Your task to perform on an android device: Search for sushi restaurants on Maps Image 0: 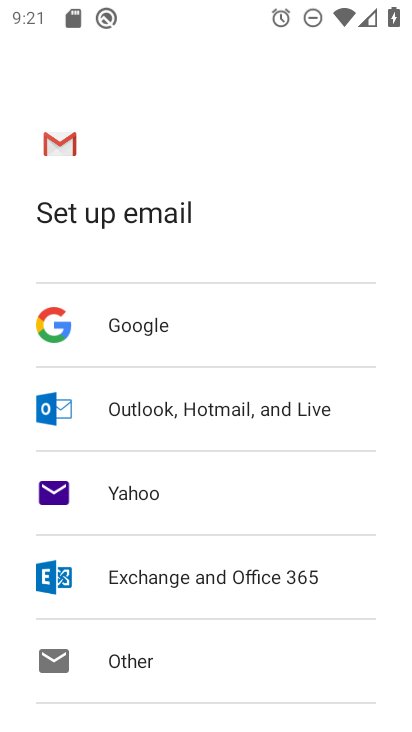
Step 0: press home button
Your task to perform on an android device: Search for sushi restaurants on Maps Image 1: 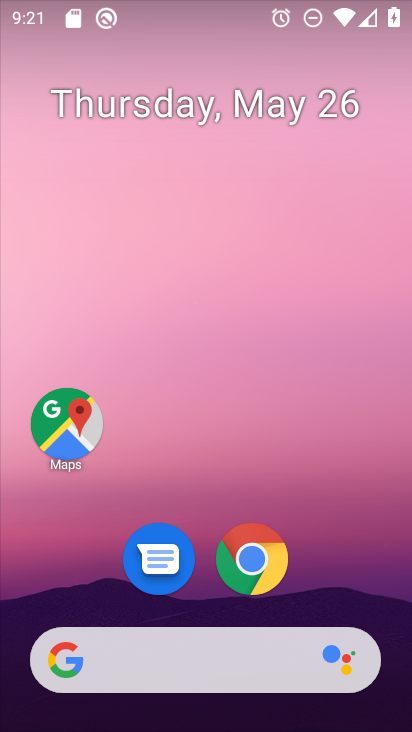
Step 1: click (68, 428)
Your task to perform on an android device: Search for sushi restaurants on Maps Image 2: 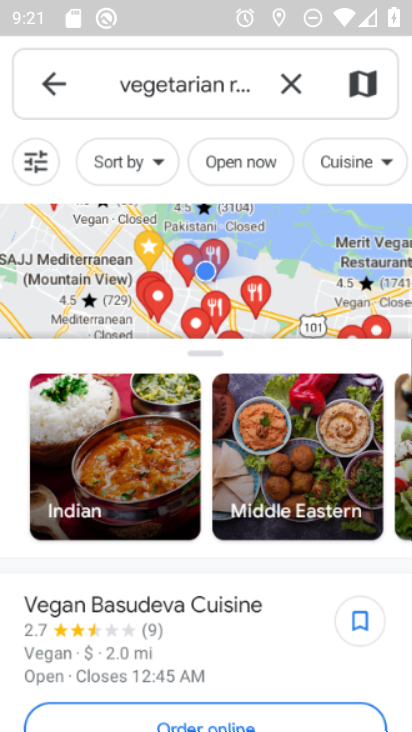
Step 2: click (279, 82)
Your task to perform on an android device: Search for sushi restaurants on Maps Image 3: 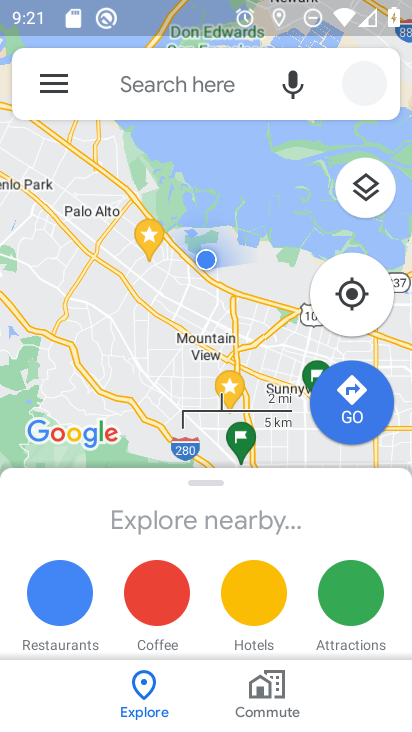
Step 3: click (173, 88)
Your task to perform on an android device: Search for sushi restaurants on Maps Image 4: 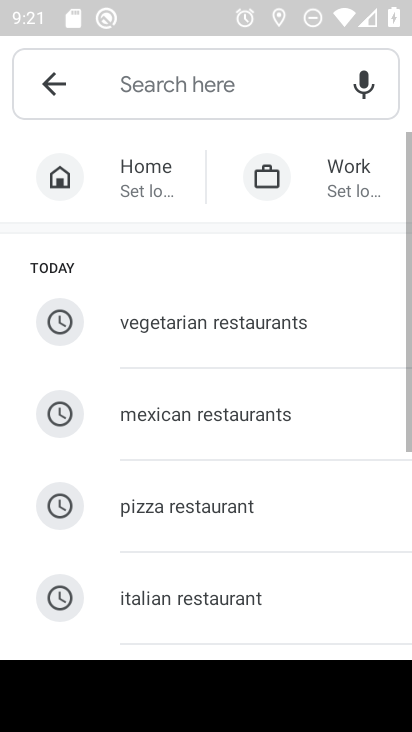
Step 4: drag from (198, 569) to (233, 231)
Your task to perform on an android device: Search for sushi restaurants on Maps Image 5: 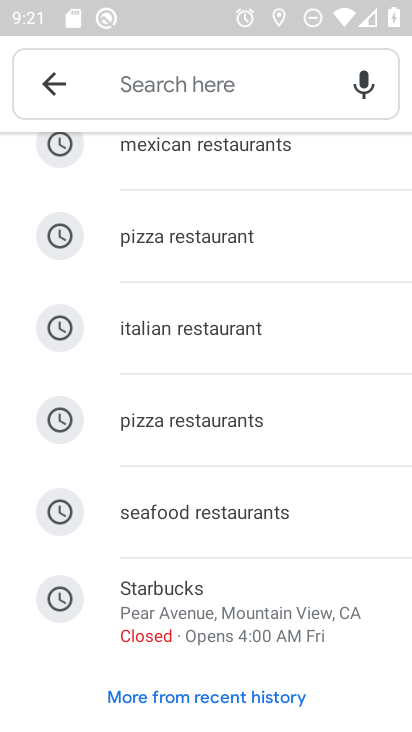
Step 5: click (176, 94)
Your task to perform on an android device: Search for sushi restaurants on Maps Image 6: 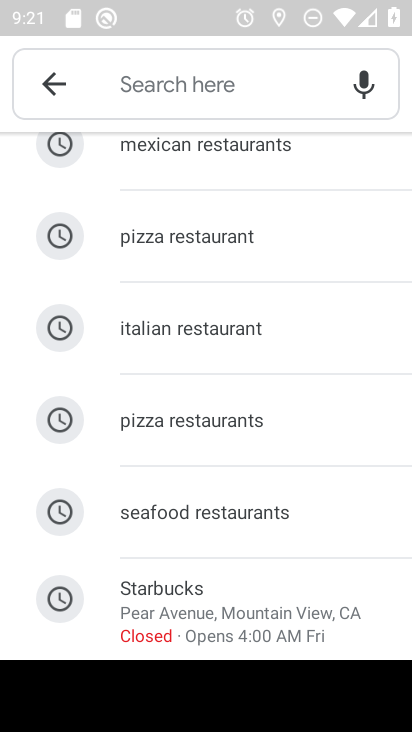
Step 6: type "sushi restaurent"
Your task to perform on an android device: Search for sushi restaurants on Maps Image 7: 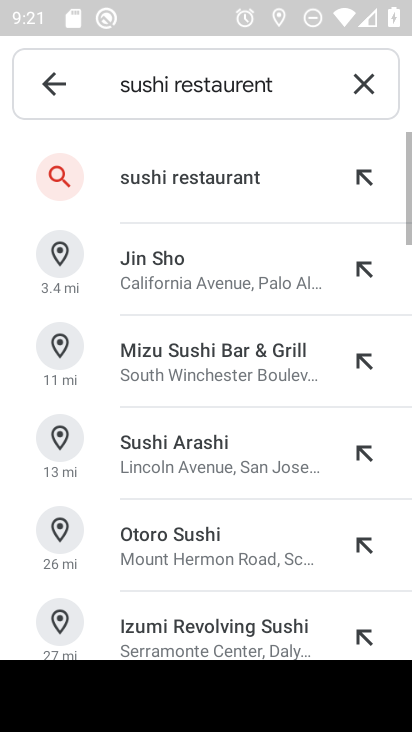
Step 7: click (172, 173)
Your task to perform on an android device: Search for sushi restaurants on Maps Image 8: 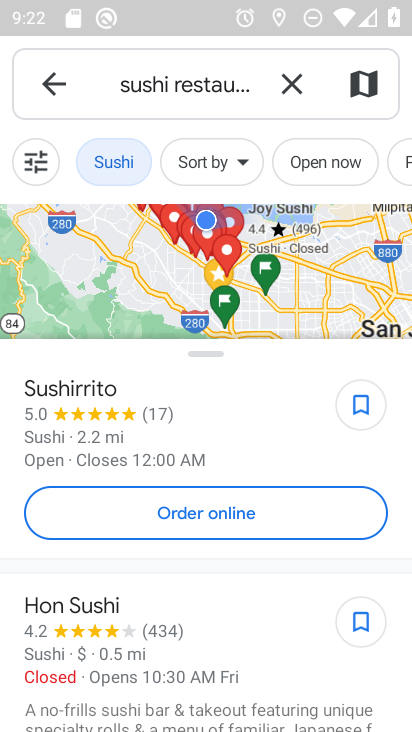
Step 8: task complete